Your task to perform on an android device: move an email to a new category in the gmail app Image 0: 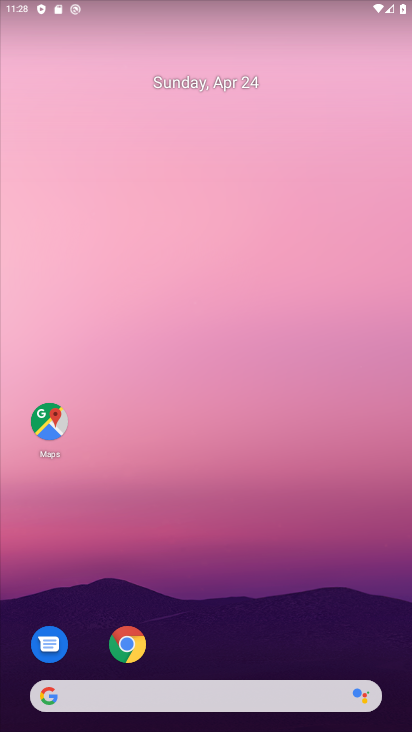
Step 0: drag from (356, 701) to (99, 17)
Your task to perform on an android device: move an email to a new category in the gmail app Image 1: 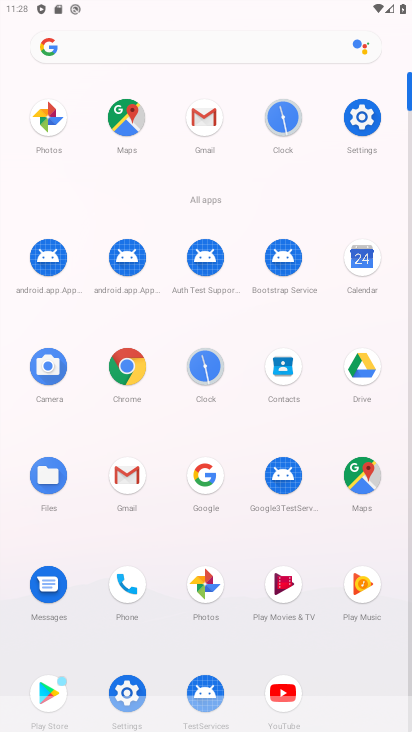
Step 1: click (117, 470)
Your task to perform on an android device: move an email to a new category in the gmail app Image 2: 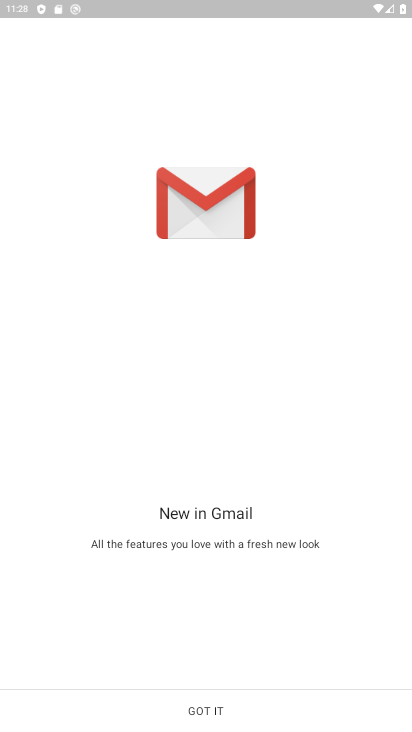
Step 2: click (208, 703)
Your task to perform on an android device: move an email to a new category in the gmail app Image 3: 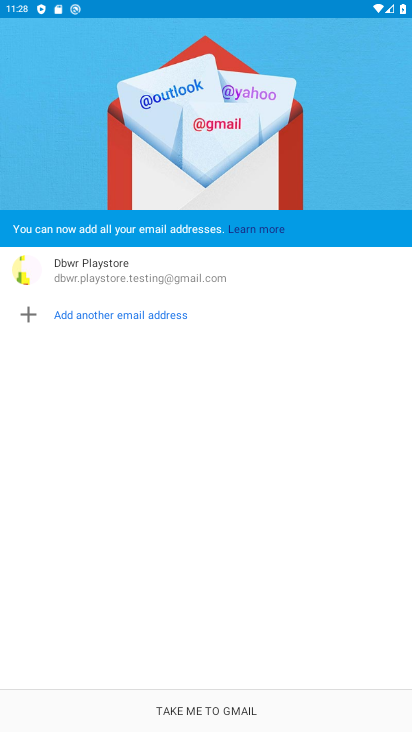
Step 3: click (261, 709)
Your task to perform on an android device: move an email to a new category in the gmail app Image 4: 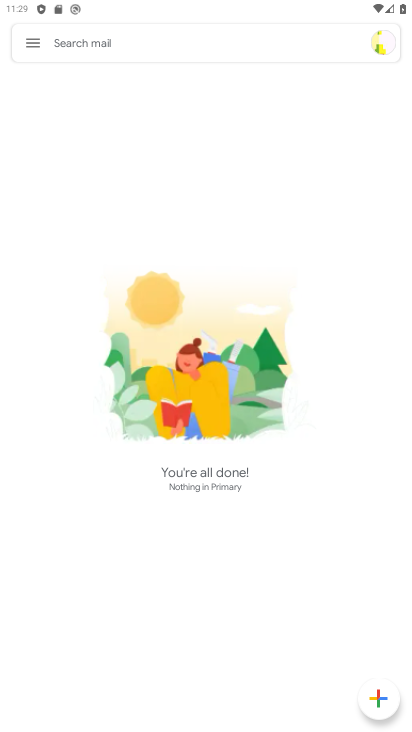
Step 4: drag from (38, 41) to (98, 159)
Your task to perform on an android device: move an email to a new category in the gmail app Image 5: 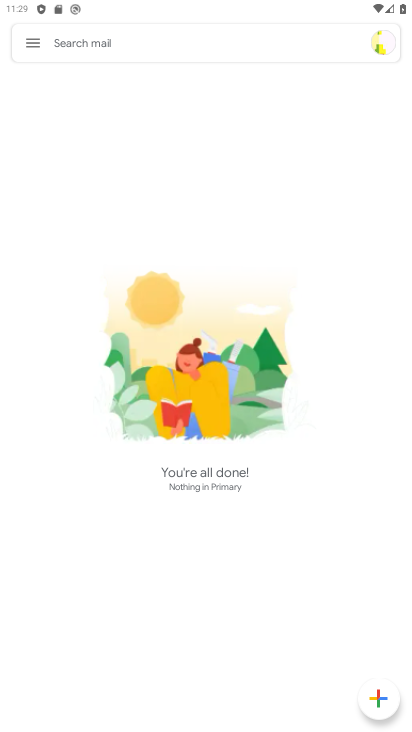
Step 5: click (36, 37)
Your task to perform on an android device: move an email to a new category in the gmail app Image 6: 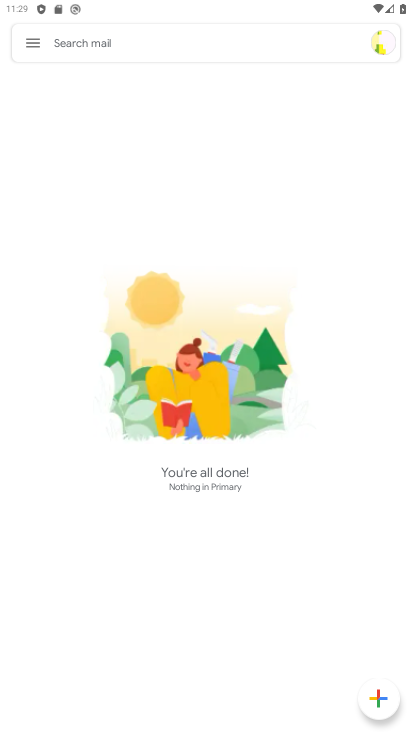
Step 6: click (32, 41)
Your task to perform on an android device: move an email to a new category in the gmail app Image 7: 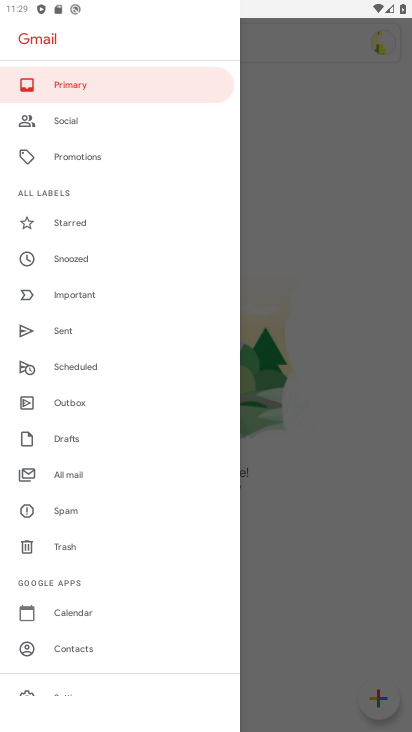
Step 7: click (66, 465)
Your task to perform on an android device: move an email to a new category in the gmail app Image 8: 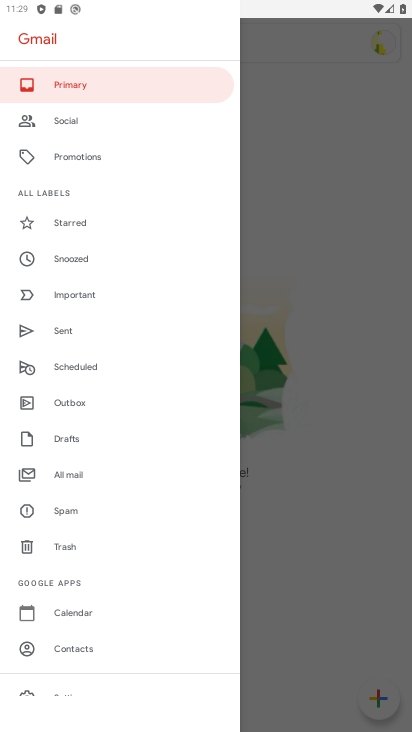
Step 8: click (66, 475)
Your task to perform on an android device: move an email to a new category in the gmail app Image 9: 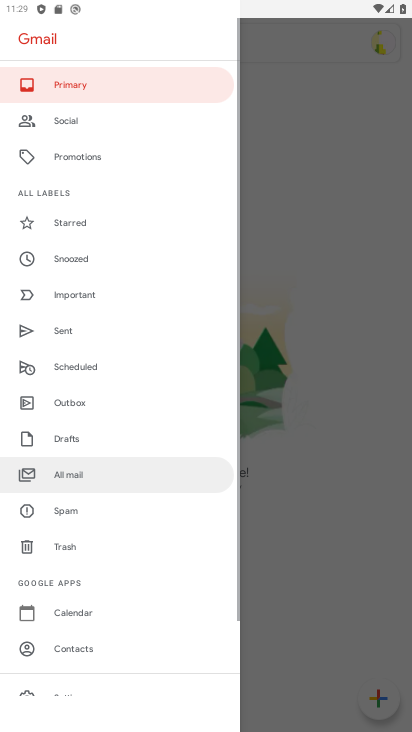
Step 9: click (66, 475)
Your task to perform on an android device: move an email to a new category in the gmail app Image 10: 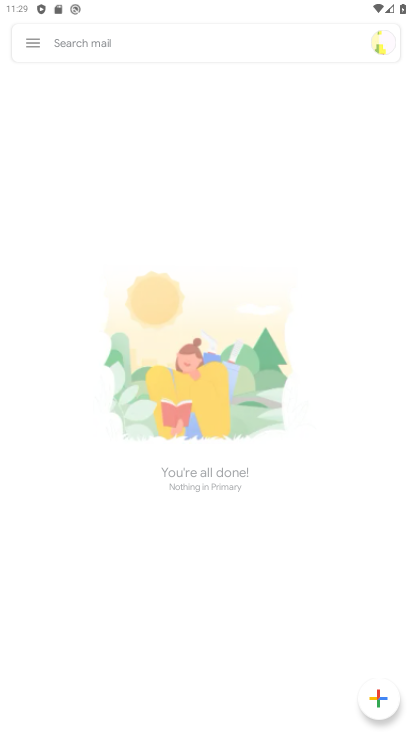
Step 10: click (66, 475)
Your task to perform on an android device: move an email to a new category in the gmail app Image 11: 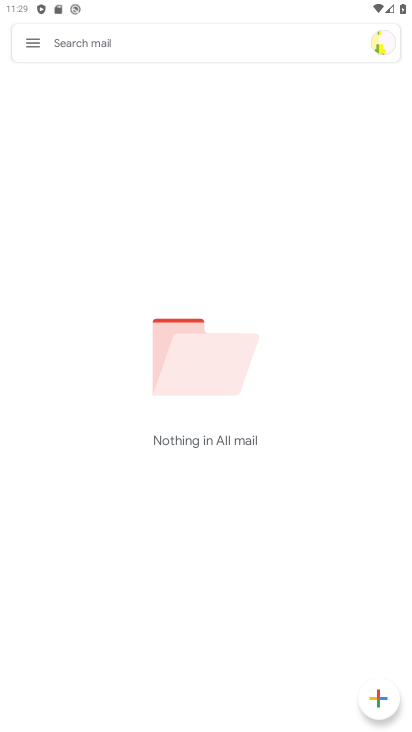
Step 11: task complete